Your task to perform on an android device: turn off notifications settings in the gmail app Image 0: 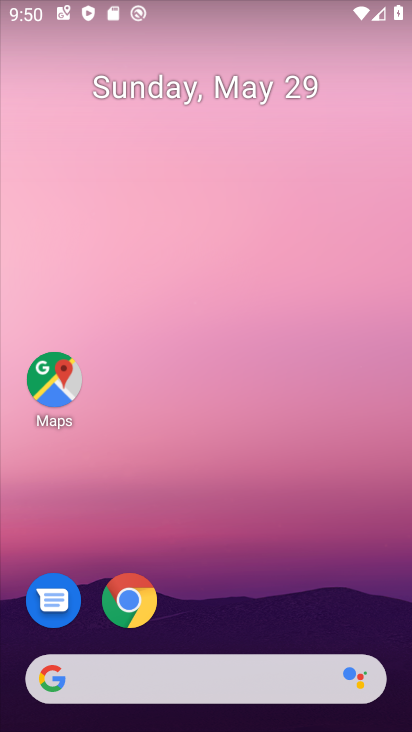
Step 0: drag from (244, 727) to (181, 70)
Your task to perform on an android device: turn off notifications settings in the gmail app Image 1: 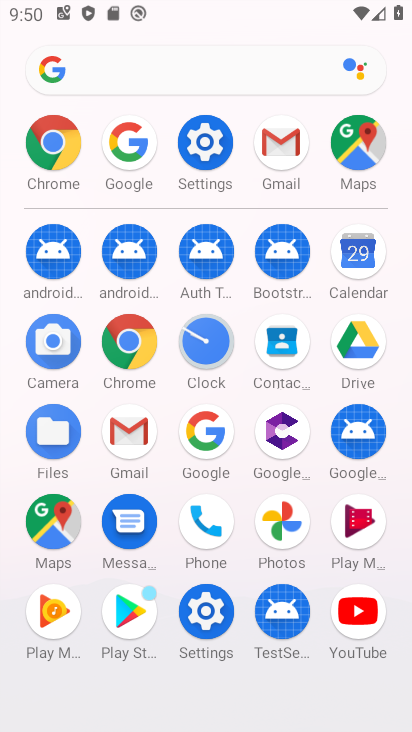
Step 1: click (284, 138)
Your task to perform on an android device: turn off notifications settings in the gmail app Image 2: 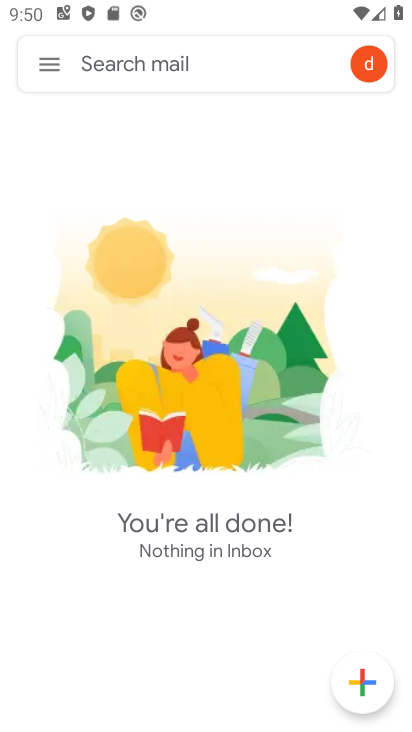
Step 2: click (44, 65)
Your task to perform on an android device: turn off notifications settings in the gmail app Image 3: 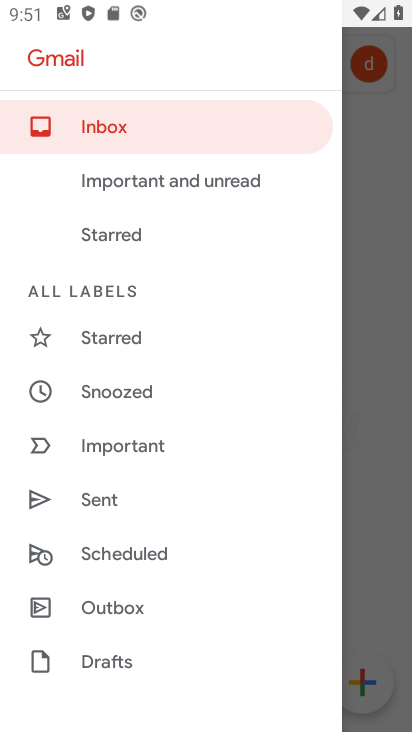
Step 3: drag from (116, 680) to (116, 209)
Your task to perform on an android device: turn off notifications settings in the gmail app Image 4: 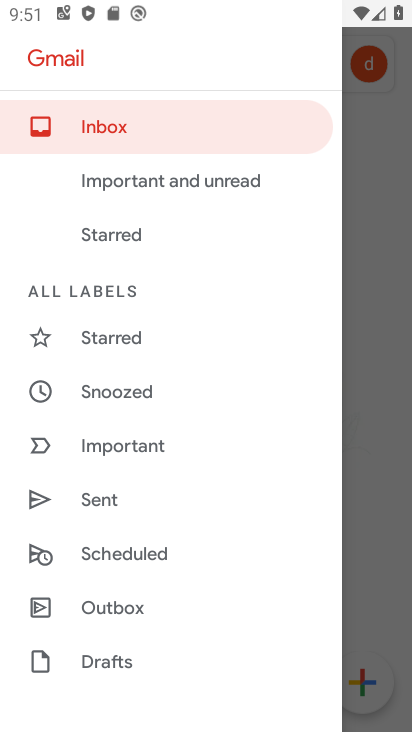
Step 4: drag from (104, 661) to (107, 275)
Your task to perform on an android device: turn off notifications settings in the gmail app Image 5: 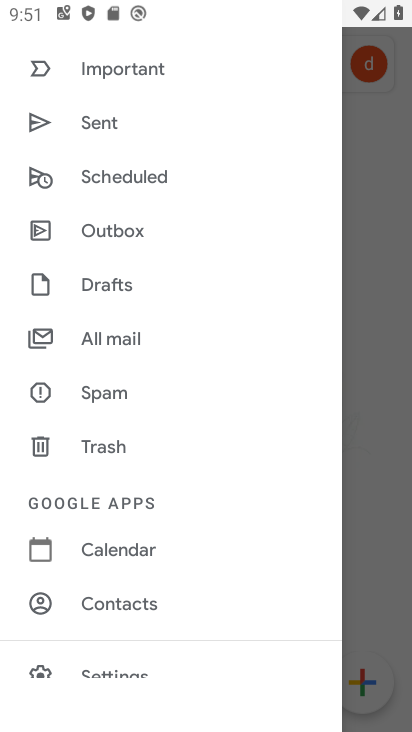
Step 5: drag from (142, 664) to (128, 247)
Your task to perform on an android device: turn off notifications settings in the gmail app Image 6: 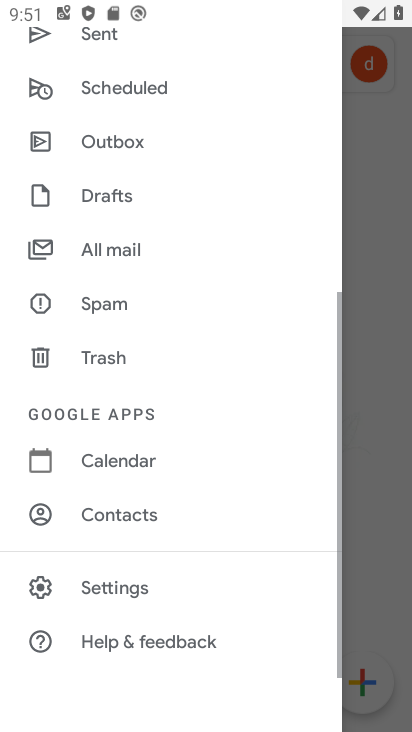
Step 6: click (111, 579)
Your task to perform on an android device: turn off notifications settings in the gmail app Image 7: 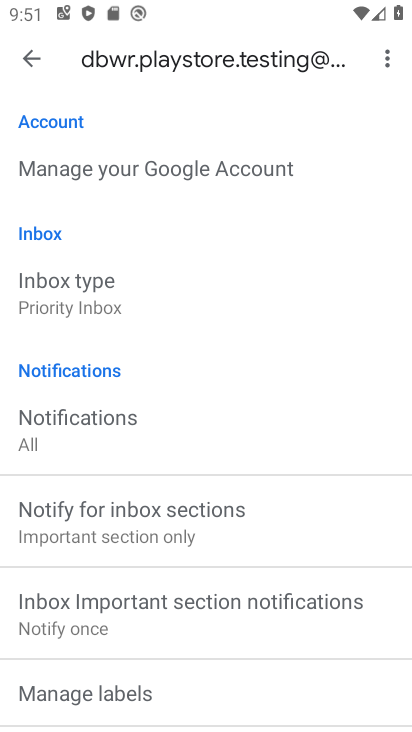
Step 7: click (69, 420)
Your task to perform on an android device: turn off notifications settings in the gmail app Image 8: 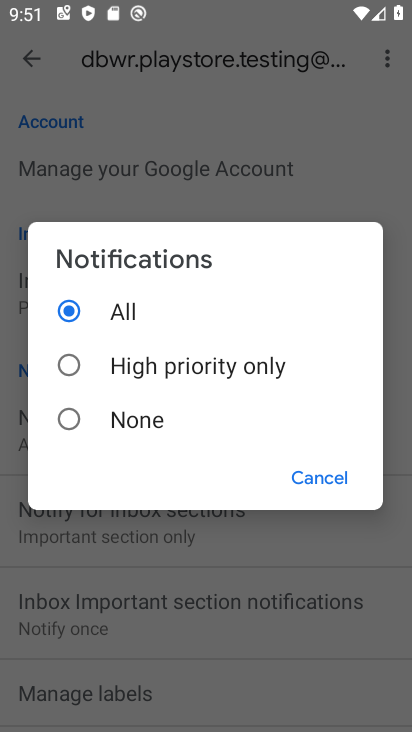
Step 8: click (66, 414)
Your task to perform on an android device: turn off notifications settings in the gmail app Image 9: 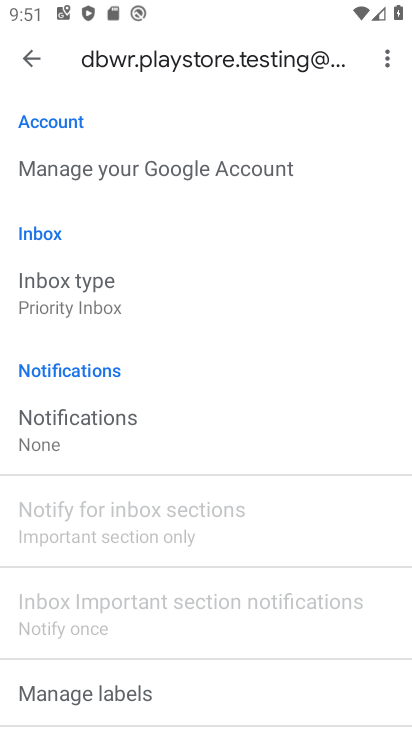
Step 9: task complete